Your task to perform on an android device: Open display settings Image 0: 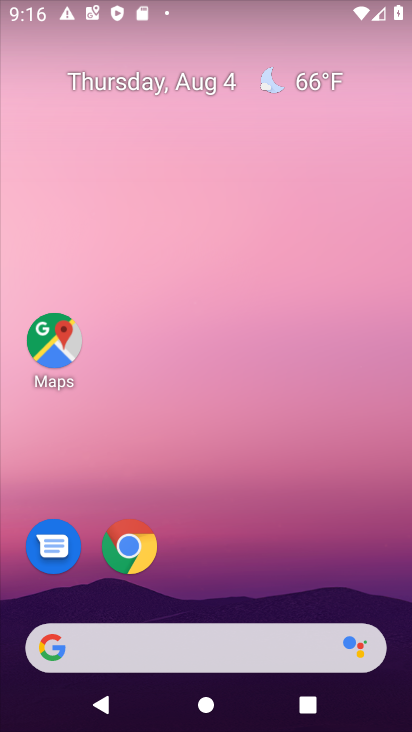
Step 0: press home button
Your task to perform on an android device: Open display settings Image 1: 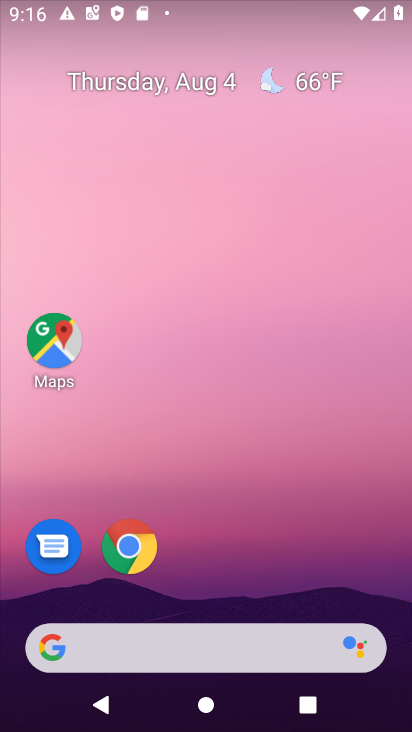
Step 1: drag from (248, 585) to (406, 171)
Your task to perform on an android device: Open display settings Image 2: 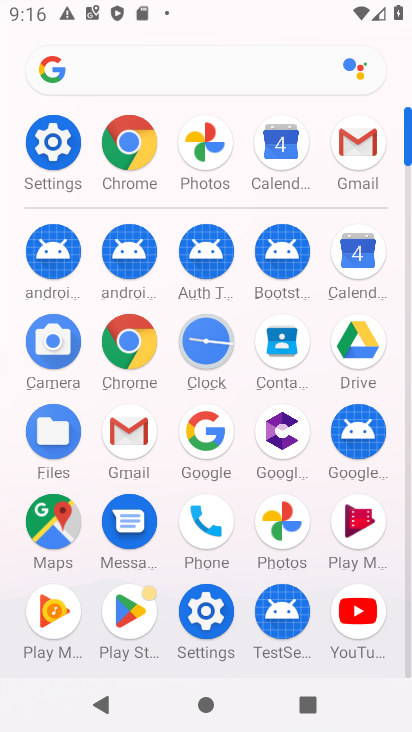
Step 2: click (55, 135)
Your task to perform on an android device: Open display settings Image 3: 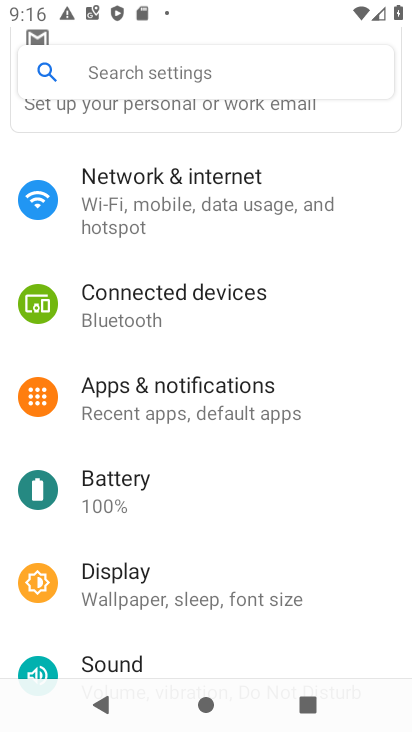
Step 3: click (116, 587)
Your task to perform on an android device: Open display settings Image 4: 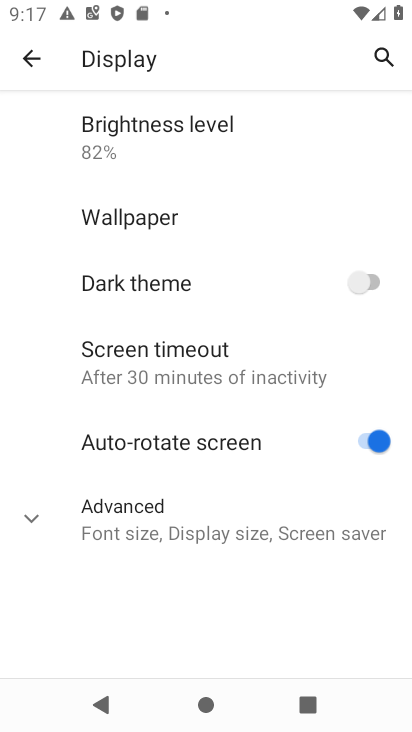
Step 4: task complete